Your task to perform on an android device: turn on priority inbox in the gmail app Image 0: 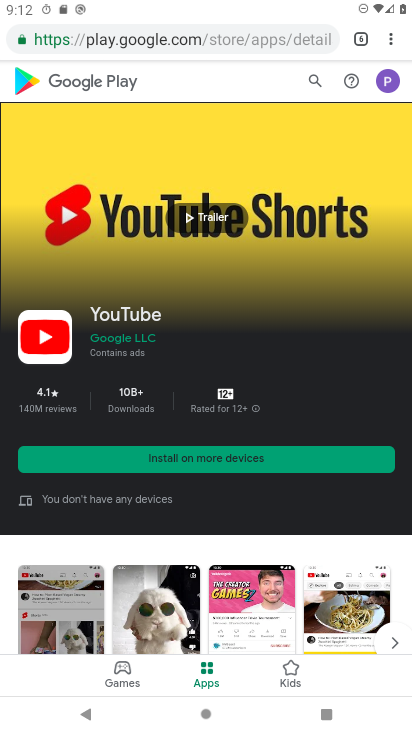
Step 0: press back button
Your task to perform on an android device: turn on priority inbox in the gmail app Image 1: 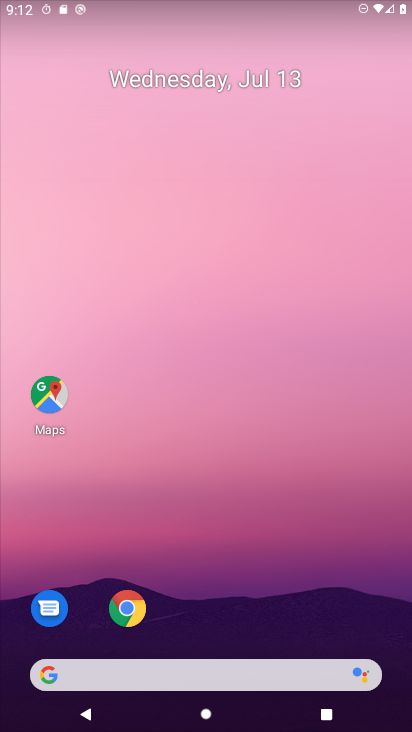
Step 1: drag from (260, 680) to (235, 205)
Your task to perform on an android device: turn on priority inbox in the gmail app Image 2: 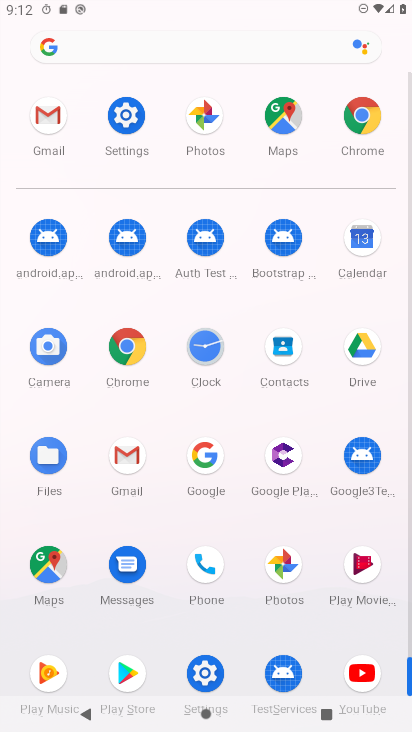
Step 2: click (123, 467)
Your task to perform on an android device: turn on priority inbox in the gmail app Image 3: 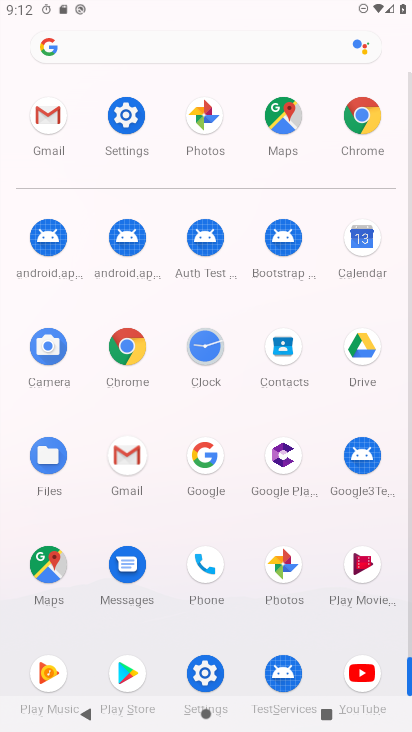
Step 3: click (123, 467)
Your task to perform on an android device: turn on priority inbox in the gmail app Image 4: 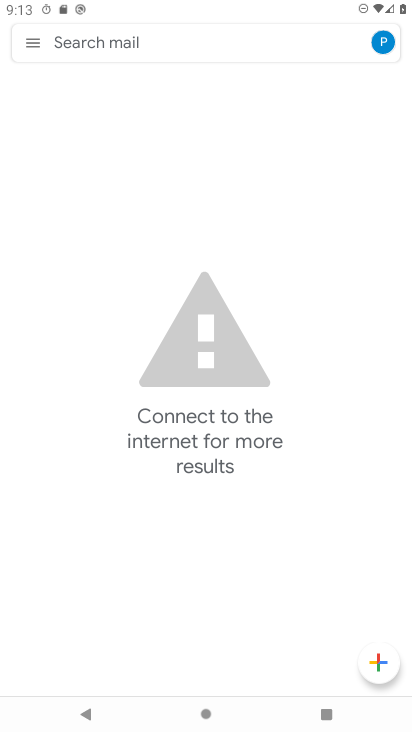
Step 4: press back button
Your task to perform on an android device: turn on priority inbox in the gmail app Image 5: 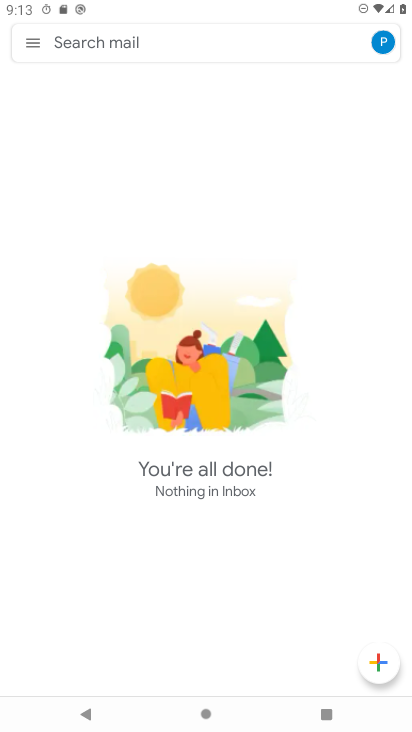
Step 5: click (25, 43)
Your task to perform on an android device: turn on priority inbox in the gmail app Image 6: 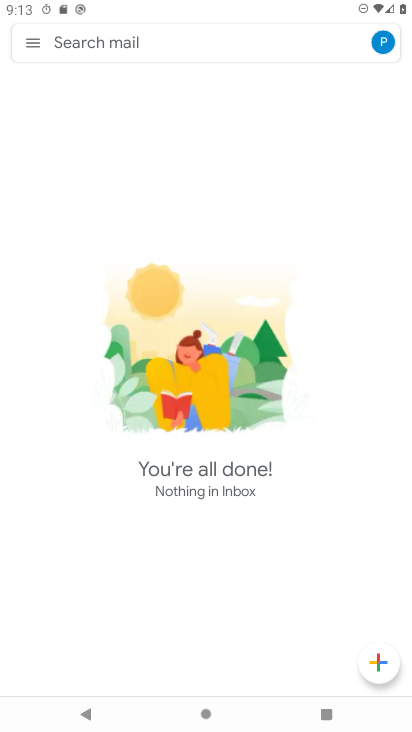
Step 6: click (34, 35)
Your task to perform on an android device: turn on priority inbox in the gmail app Image 7: 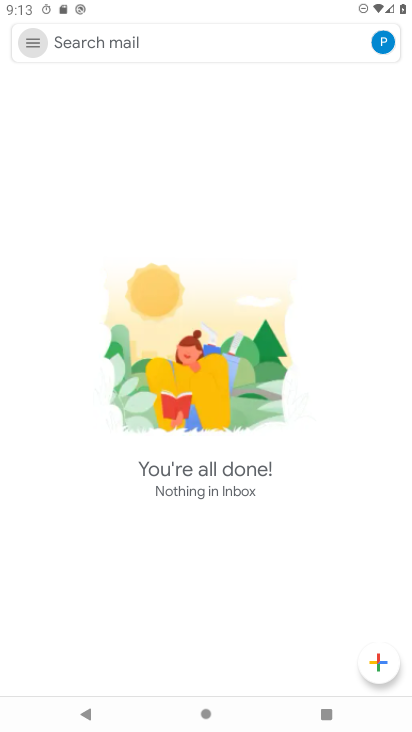
Step 7: click (36, 34)
Your task to perform on an android device: turn on priority inbox in the gmail app Image 8: 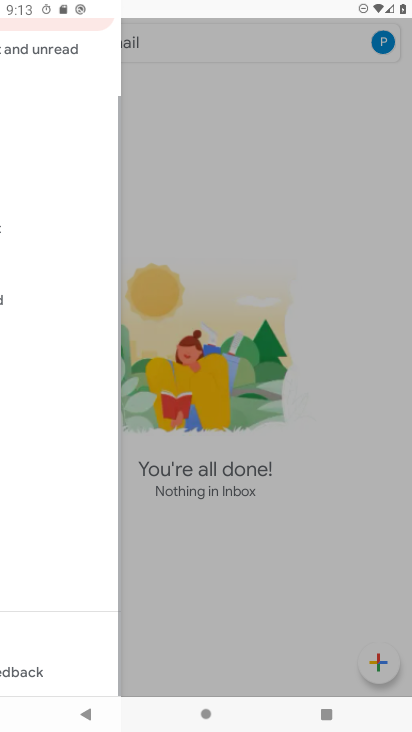
Step 8: click (39, 35)
Your task to perform on an android device: turn on priority inbox in the gmail app Image 9: 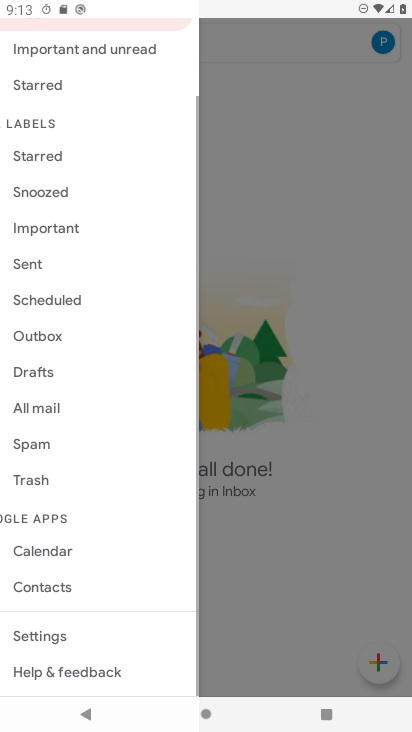
Step 9: drag from (41, 44) to (57, 637)
Your task to perform on an android device: turn on priority inbox in the gmail app Image 10: 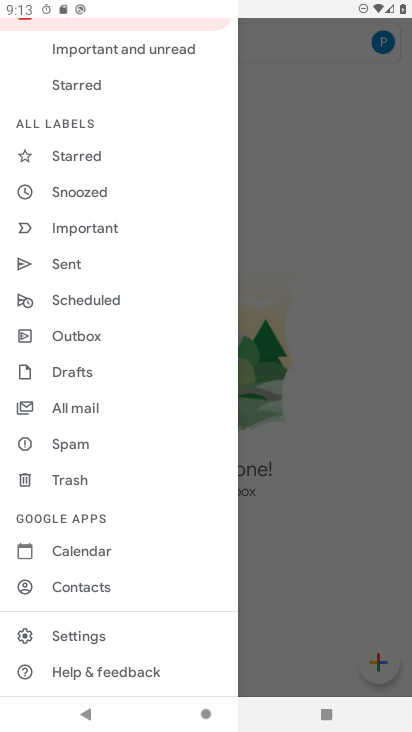
Step 10: click (57, 636)
Your task to perform on an android device: turn on priority inbox in the gmail app Image 11: 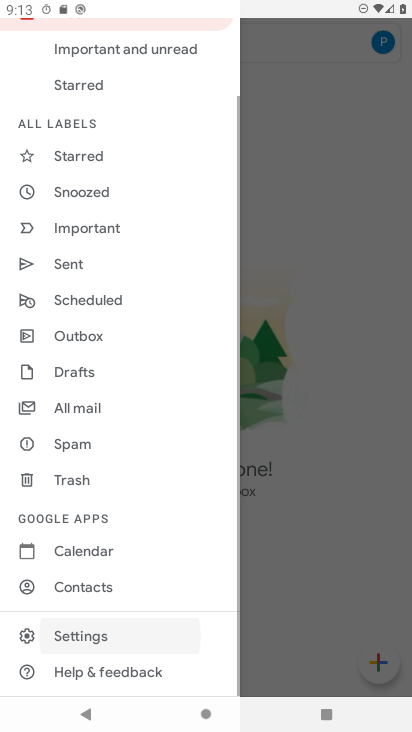
Step 11: click (58, 633)
Your task to perform on an android device: turn on priority inbox in the gmail app Image 12: 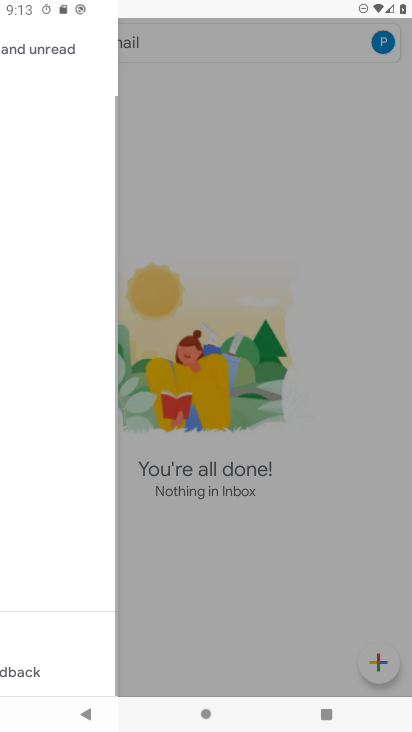
Step 12: click (59, 629)
Your task to perform on an android device: turn on priority inbox in the gmail app Image 13: 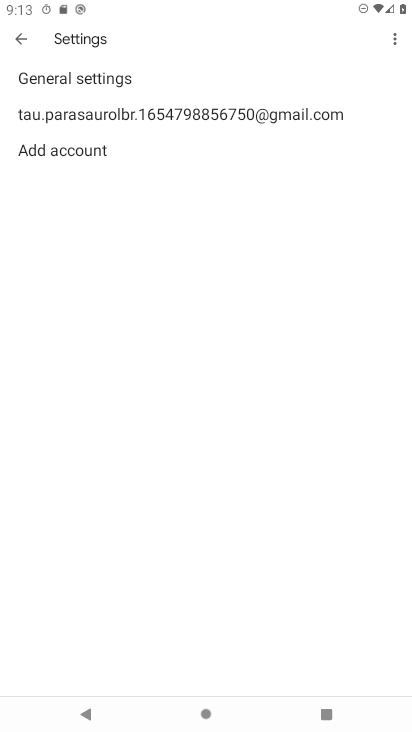
Step 13: click (77, 114)
Your task to perform on an android device: turn on priority inbox in the gmail app Image 14: 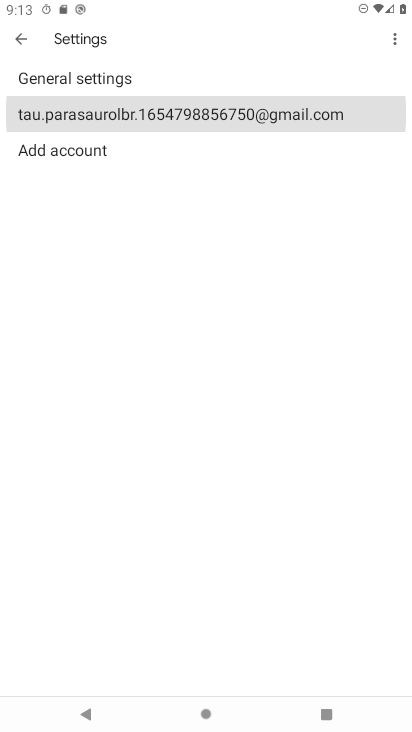
Step 14: click (77, 115)
Your task to perform on an android device: turn on priority inbox in the gmail app Image 15: 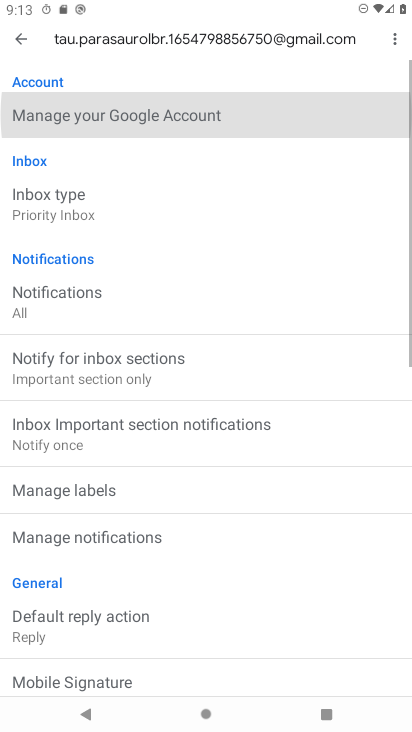
Step 15: click (79, 114)
Your task to perform on an android device: turn on priority inbox in the gmail app Image 16: 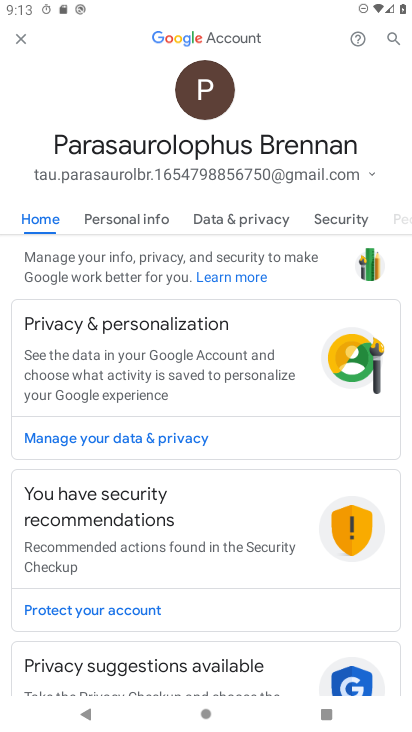
Step 16: task complete